Your task to perform on an android device: Check the news Image 0: 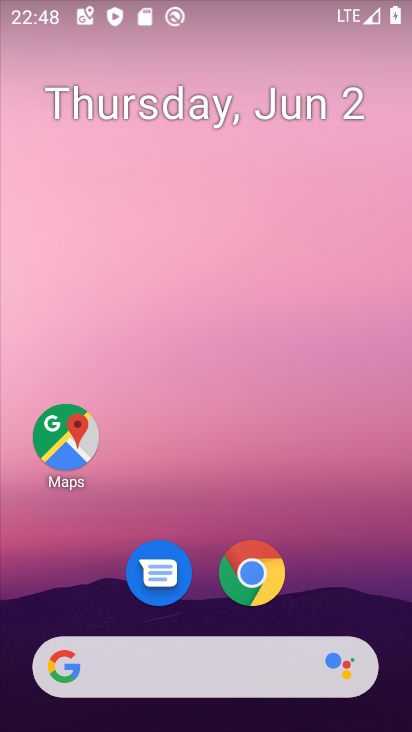
Step 0: click (175, 651)
Your task to perform on an android device: Check the news Image 1: 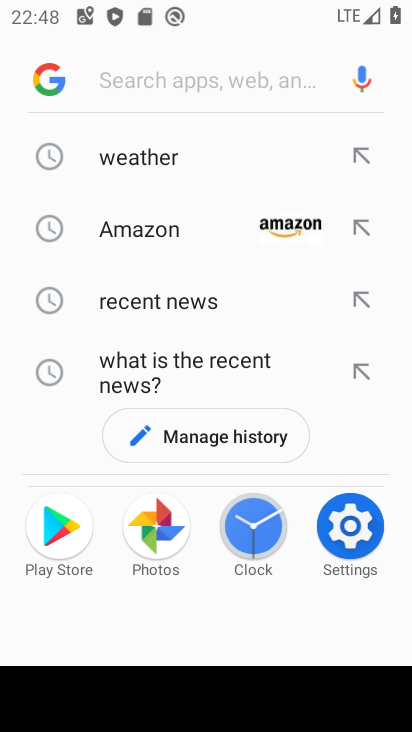
Step 1: type "news"
Your task to perform on an android device: Check the news Image 2: 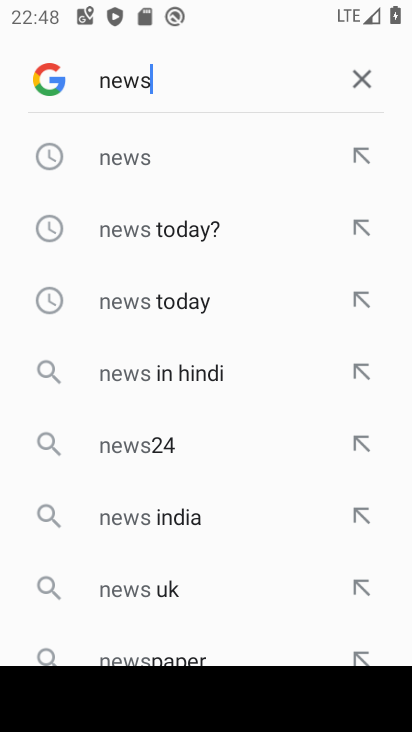
Step 2: click (137, 158)
Your task to perform on an android device: Check the news Image 3: 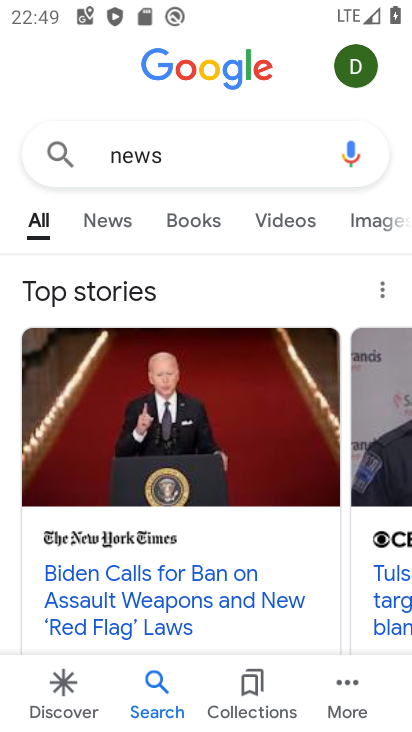
Step 3: click (114, 214)
Your task to perform on an android device: Check the news Image 4: 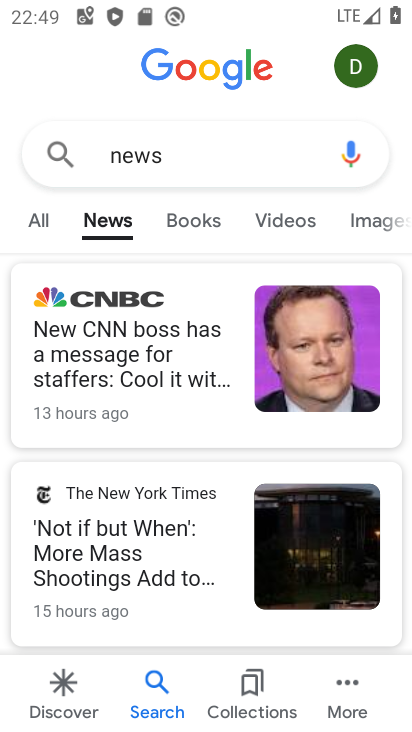
Step 4: task complete